Your task to perform on an android device: Go to wifi settings Image 0: 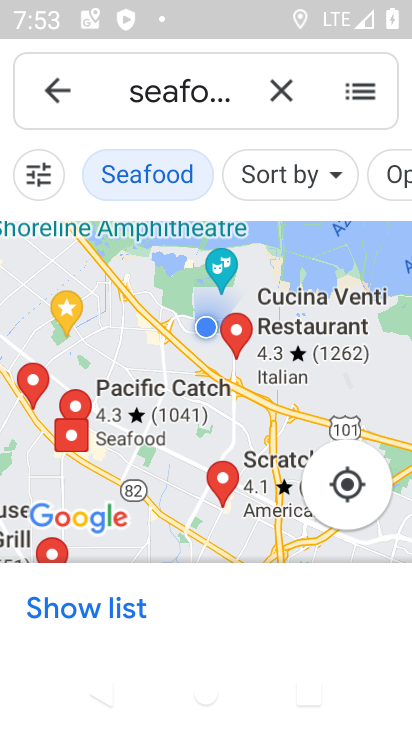
Step 0: press home button
Your task to perform on an android device: Go to wifi settings Image 1: 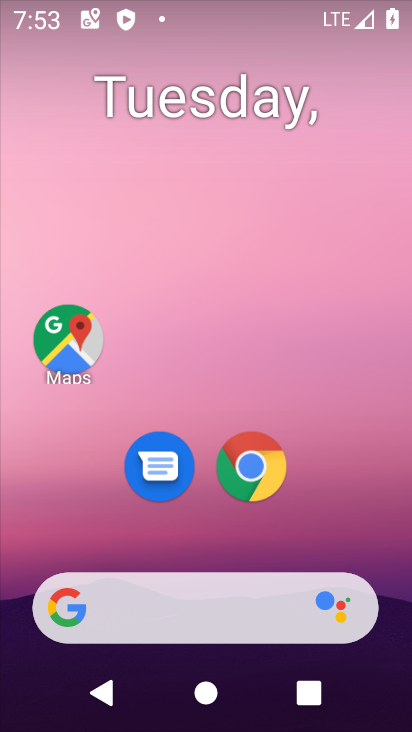
Step 1: drag from (380, 507) to (315, 128)
Your task to perform on an android device: Go to wifi settings Image 2: 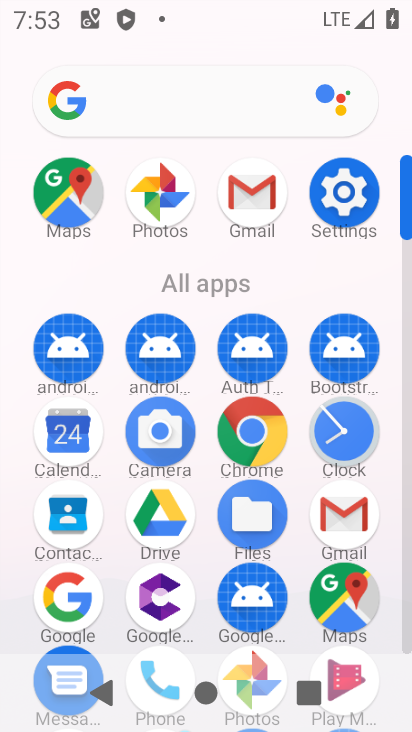
Step 2: click (345, 202)
Your task to perform on an android device: Go to wifi settings Image 3: 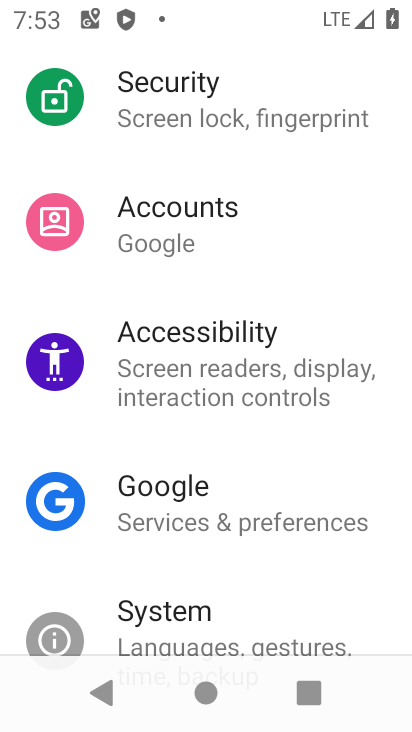
Step 3: drag from (268, 250) to (324, 706)
Your task to perform on an android device: Go to wifi settings Image 4: 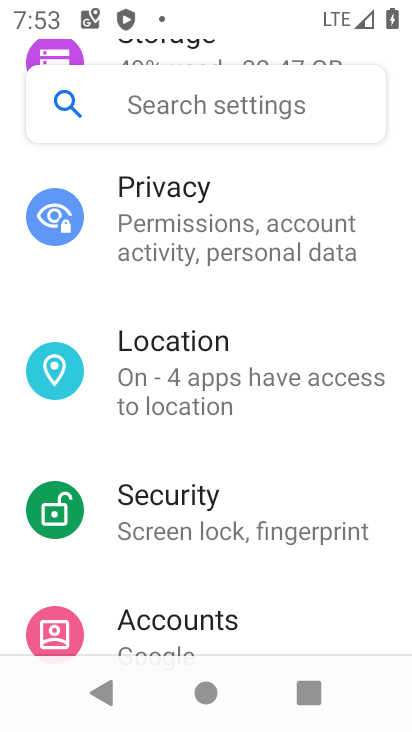
Step 4: drag from (257, 244) to (295, 539)
Your task to perform on an android device: Go to wifi settings Image 5: 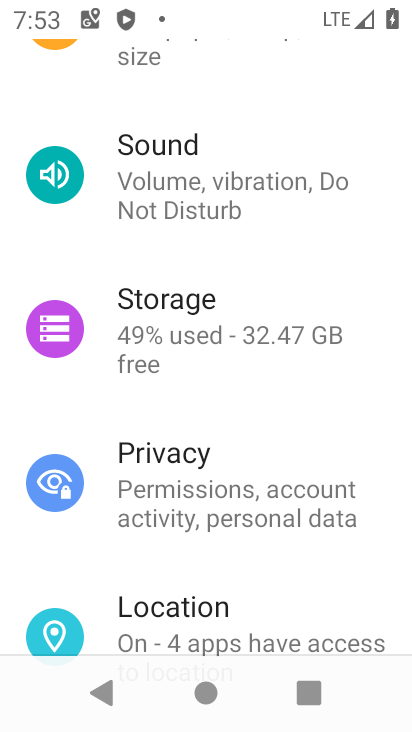
Step 5: click (328, 262)
Your task to perform on an android device: Go to wifi settings Image 6: 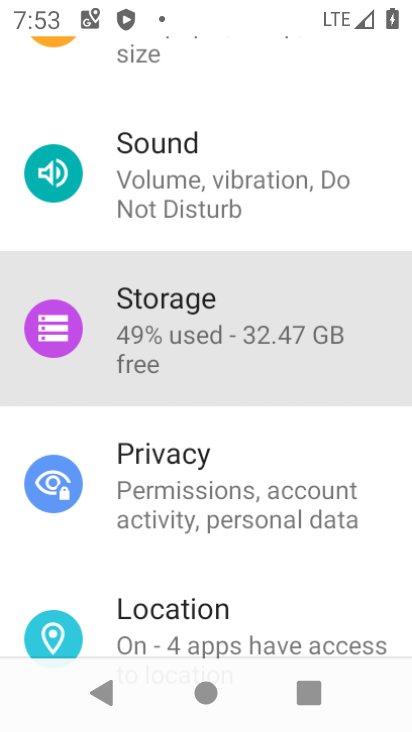
Step 6: drag from (328, 262) to (277, 629)
Your task to perform on an android device: Go to wifi settings Image 7: 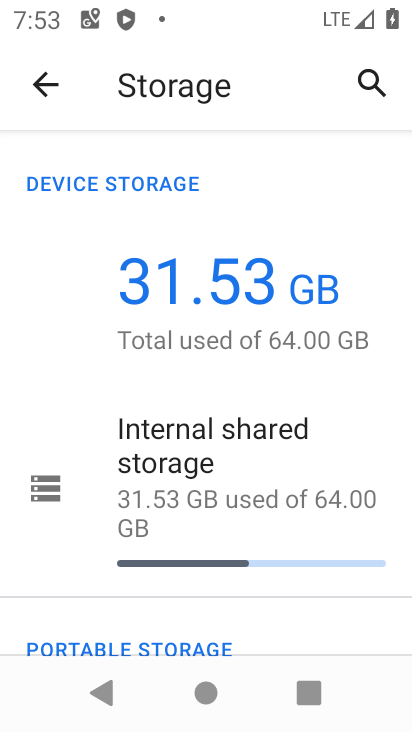
Step 7: click (61, 92)
Your task to perform on an android device: Go to wifi settings Image 8: 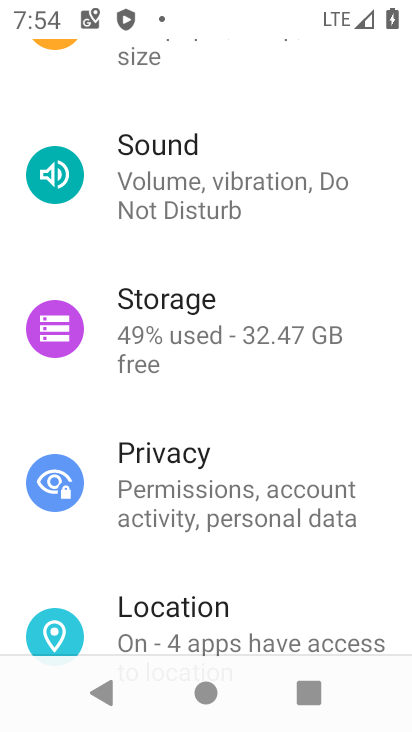
Step 8: drag from (125, 284) to (323, 720)
Your task to perform on an android device: Go to wifi settings Image 9: 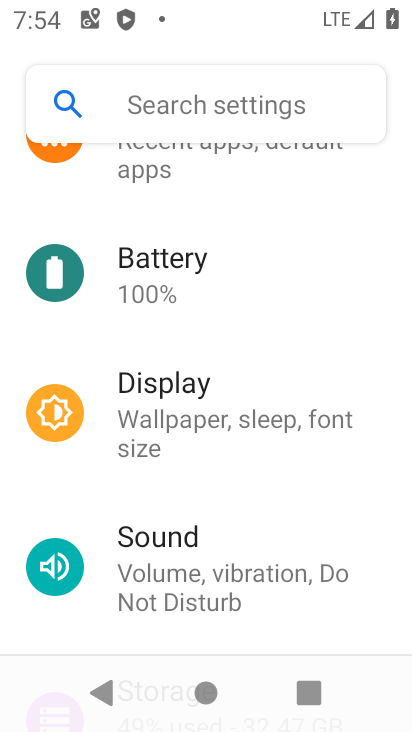
Step 9: drag from (284, 243) to (331, 708)
Your task to perform on an android device: Go to wifi settings Image 10: 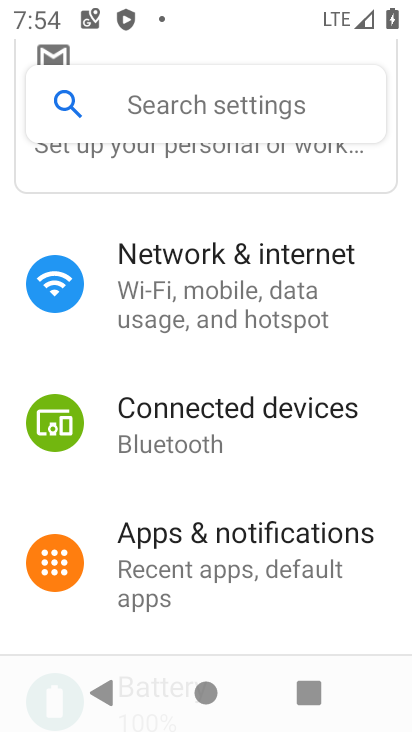
Step 10: click (254, 256)
Your task to perform on an android device: Go to wifi settings Image 11: 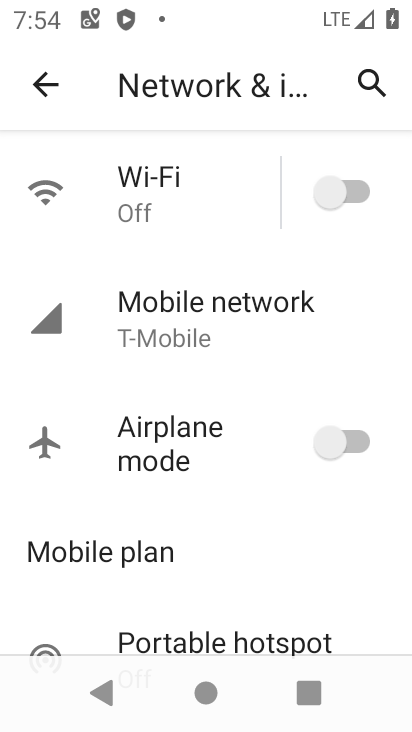
Step 11: click (339, 199)
Your task to perform on an android device: Go to wifi settings Image 12: 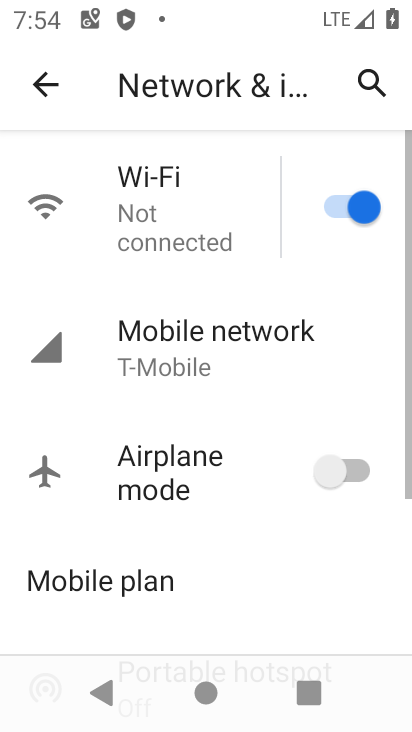
Step 12: click (214, 197)
Your task to perform on an android device: Go to wifi settings Image 13: 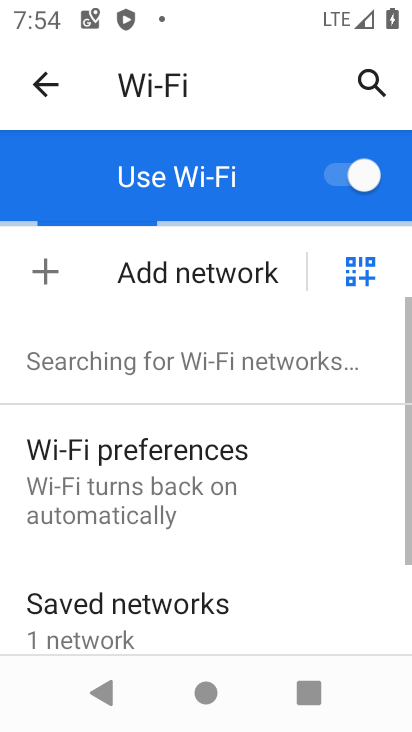
Step 13: task complete